Your task to perform on an android device: change text size in settings app Image 0: 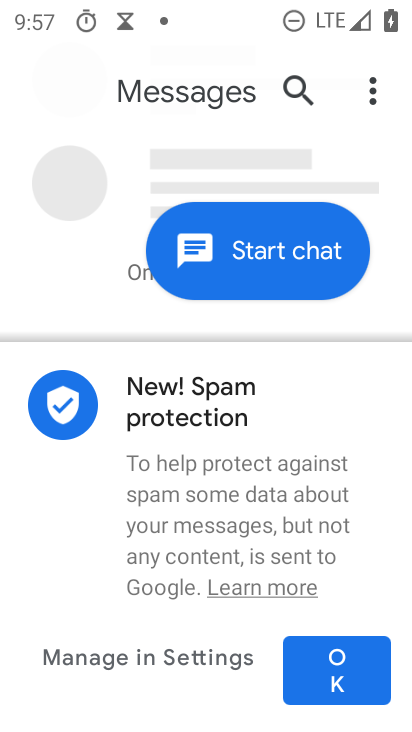
Step 0: press home button
Your task to perform on an android device: change text size in settings app Image 1: 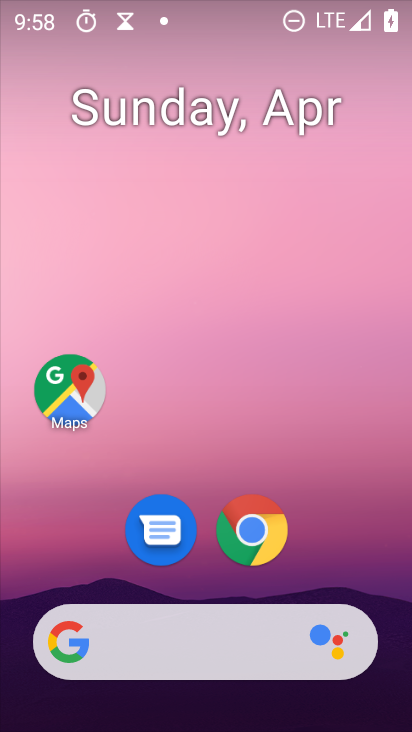
Step 1: drag from (379, 570) to (411, 52)
Your task to perform on an android device: change text size in settings app Image 2: 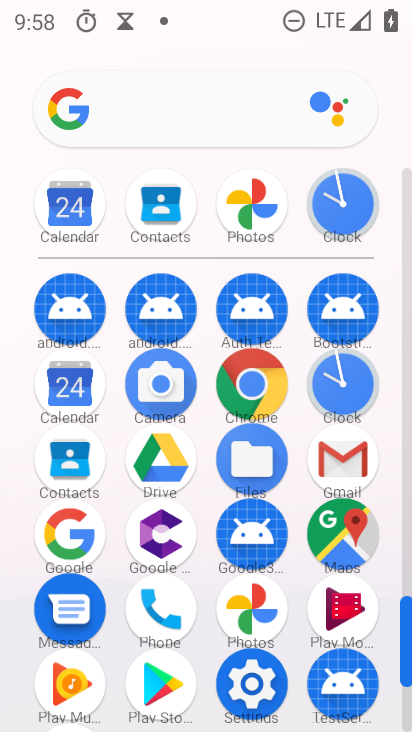
Step 2: click (257, 693)
Your task to perform on an android device: change text size in settings app Image 3: 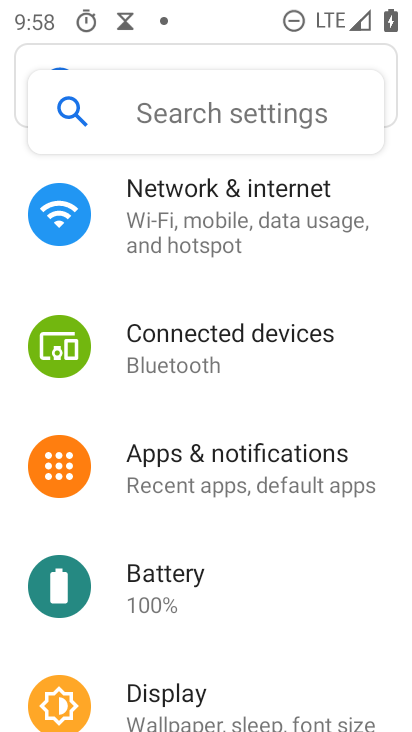
Step 3: drag from (226, 595) to (236, 306)
Your task to perform on an android device: change text size in settings app Image 4: 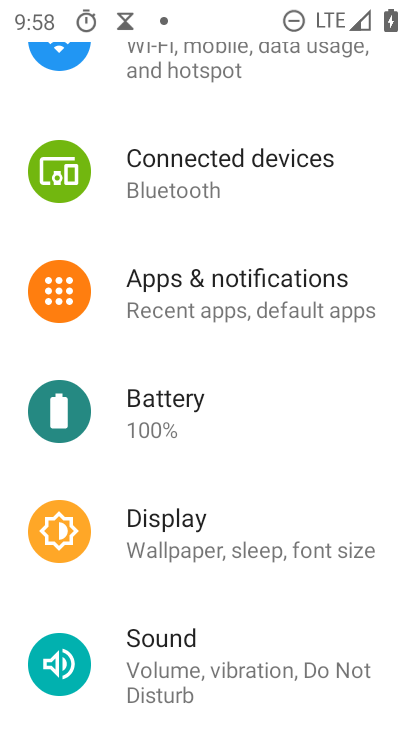
Step 4: click (171, 540)
Your task to perform on an android device: change text size in settings app Image 5: 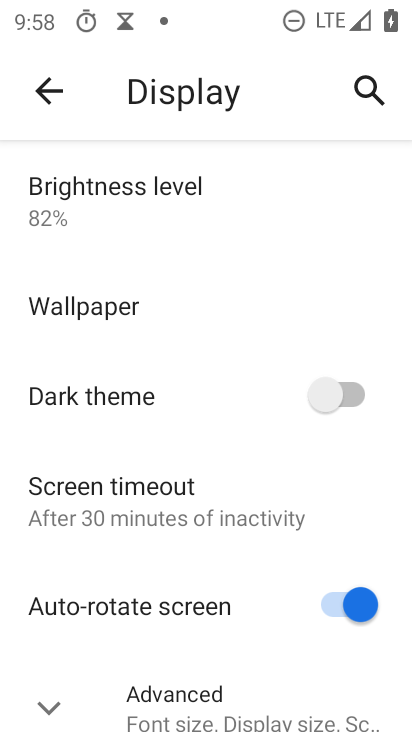
Step 5: drag from (167, 542) to (183, 257)
Your task to perform on an android device: change text size in settings app Image 6: 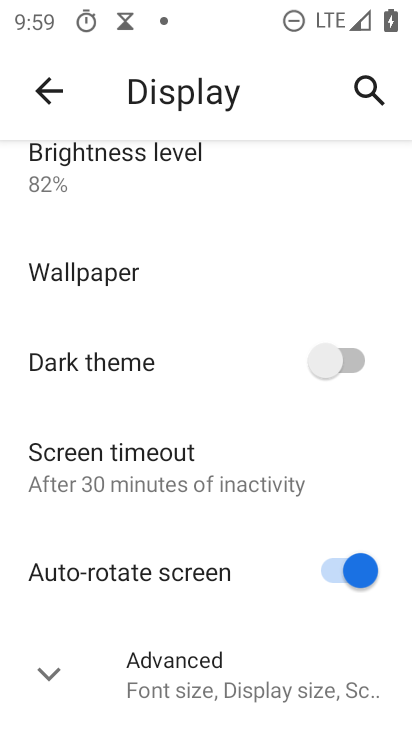
Step 6: click (51, 694)
Your task to perform on an android device: change text size in settings app Image 7: 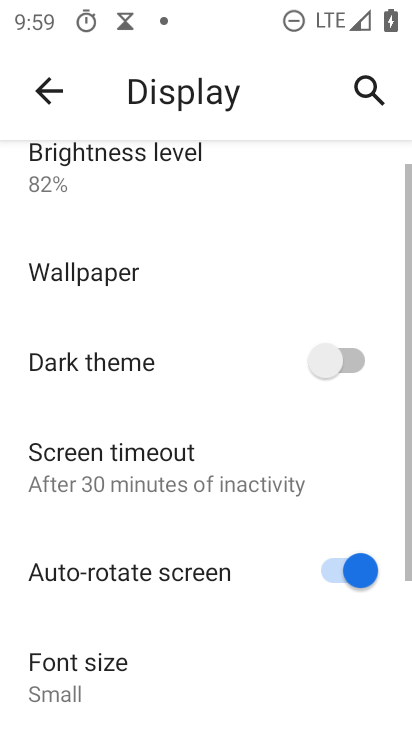
Step 7: drag from (113, 661) to (122, 424)
Your task to perform on an android device: change text size in settings app Image 8: 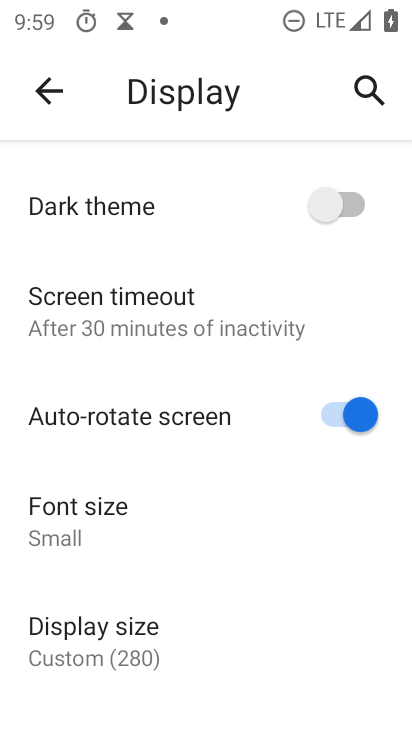
Step 8: click (49, 534)
Your task to perform on an android device: change text size in settings app Image 9: 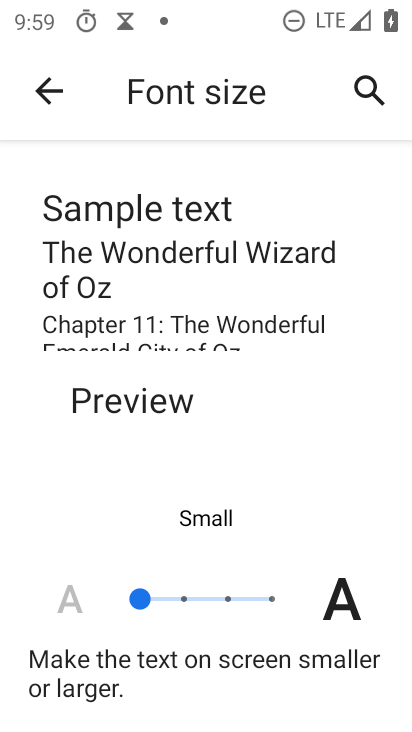
Step 9: click (175, 603)
Your task to perform on an android device: change text size in settings app Image 10: 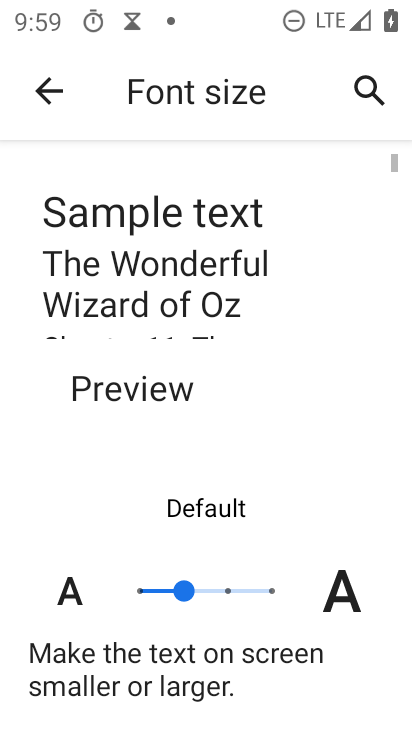
Step 10: task complete